Your task to perform on an android device: Search for pizza restaurants on Maps Image 0: 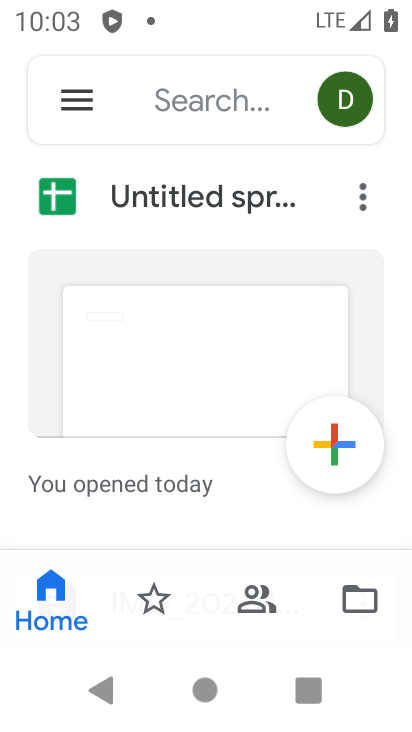
Step 0: press home button
Your task to perform on an android device: Search for pizza restaurants on Maps Image 1: 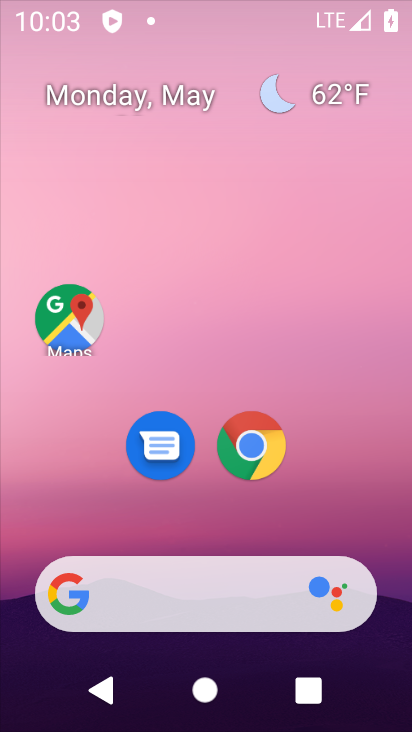
Step 1: drag from (404, 645) to (178, 15)
Your task to perform on an android device: Search for pizza restaurants on Maps Image 2: 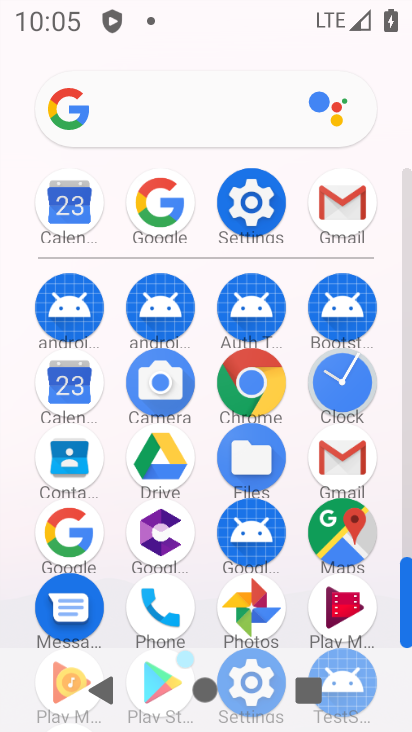
Step 2: click (358, 521)
Your task to perform on an android device: Search for pizza restaurants on Maps Image 3: 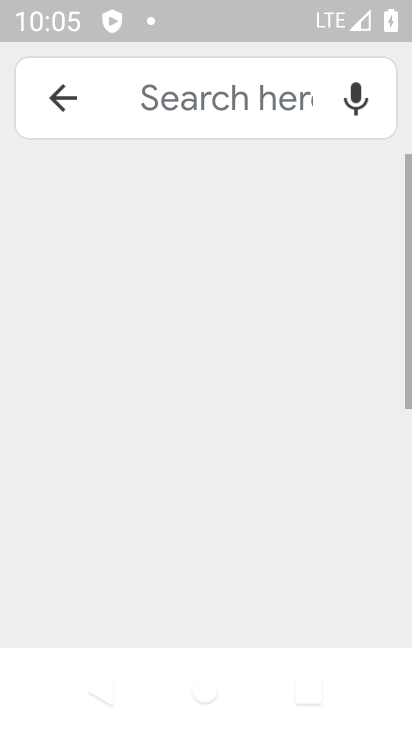
Step 3: click (204, 124)
Your task to perform on an android device: Search for pizza restaurants on Maps Image 4: 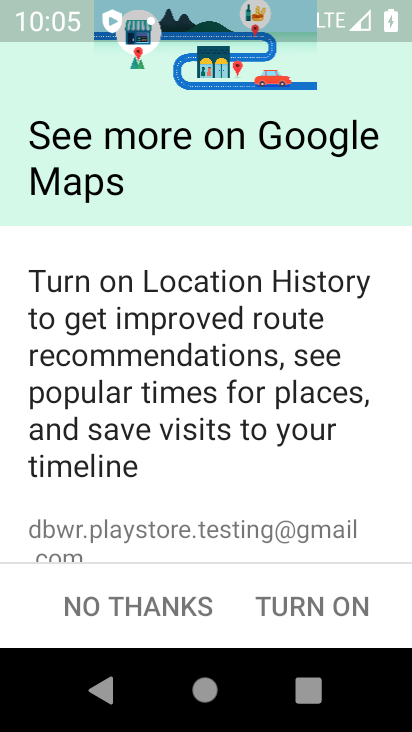
Step 4: click (154, 622)
Your task to perform on an android device: Search for pizza restaurants on Maps Image 5: 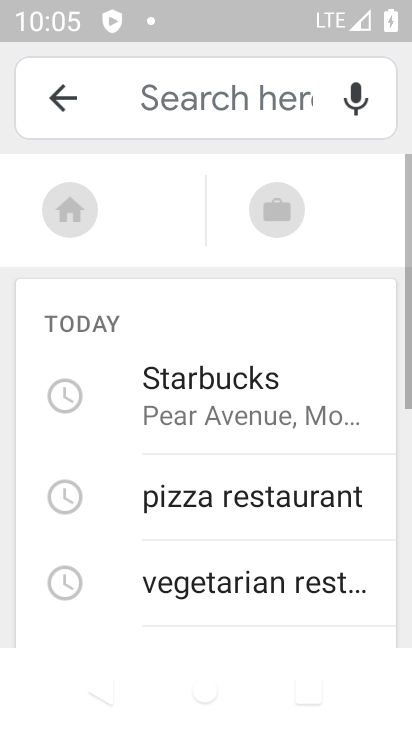
Step 5: click (151, 80)
Your task to perform on an android device: Search for pizza restaurants on Maps Image 6: 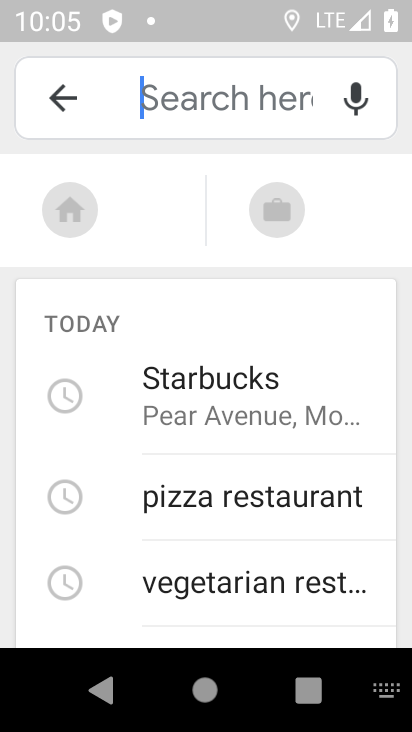
Step 6: click (227, 493)
Your task to perform on an android device: Search for pizza restaurants on Maps Image 7: 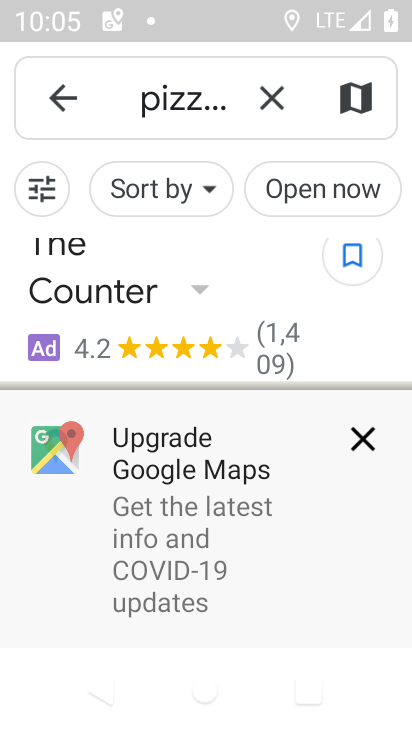
Step 7: task complete